Your task to perform on an android device: What's the weather? Image 0: 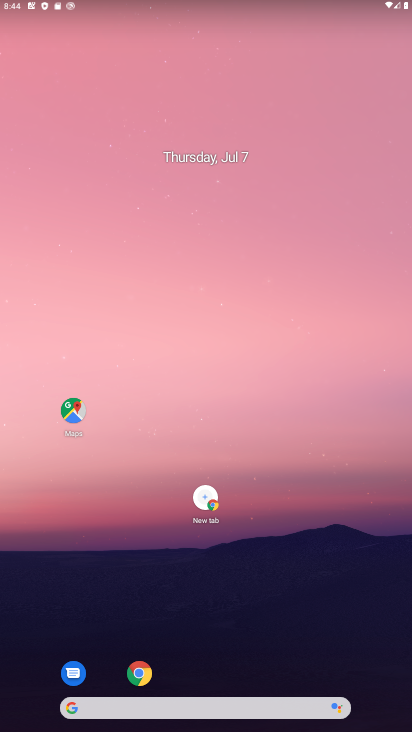
Step 0: press home button
Your task to perform on an android device: What's the weather? Image 1: 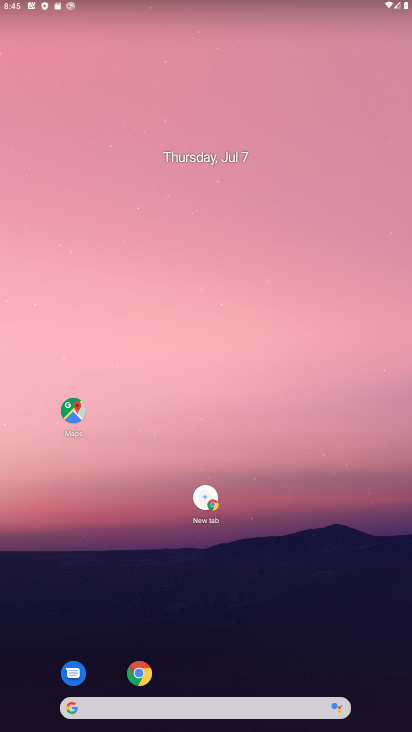
Step 1: click (74, 711)
Your task to perform on an android device: What's the weather? Image 2: 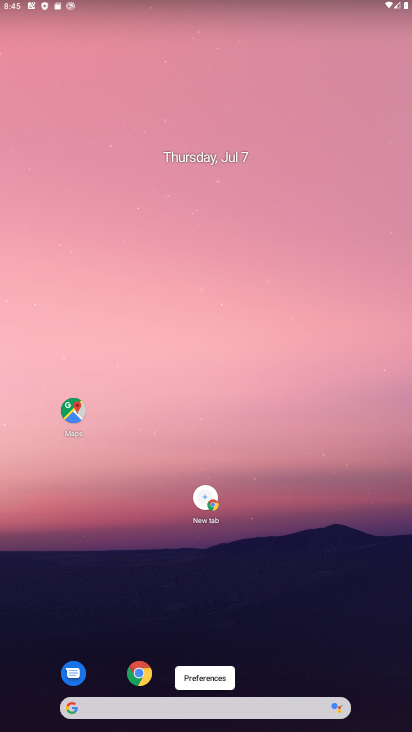
Step 2: click (74, 711)
Your task to perform on an android device: What's the weather? Image 3: 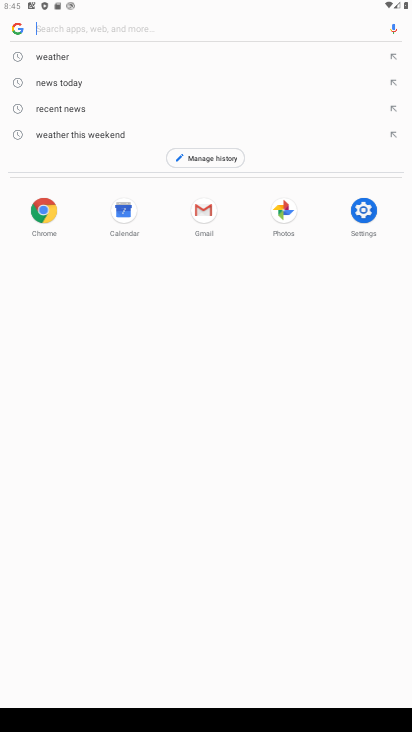
Step 3: click (47, 58)
Your task to perform on an android device: What's the weather? Image 4: 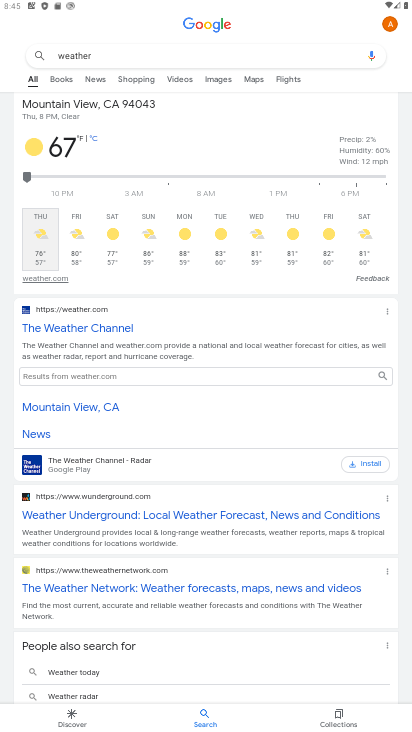
Step 4: task complete